Your task to perform on an android device: Go to sound settings Image 0: 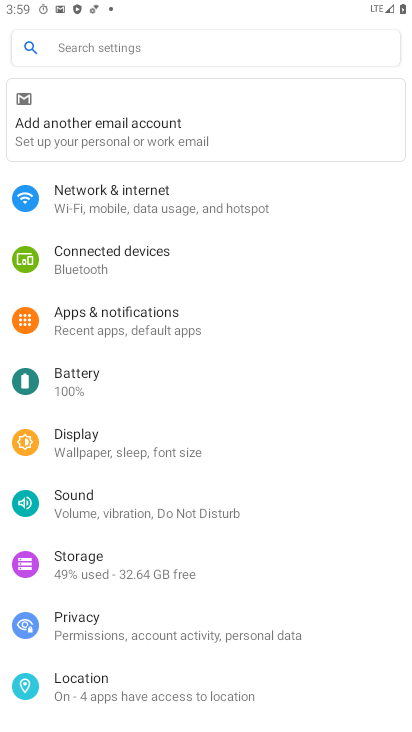
Step 0: click (74, 506)
Your task to perform on an android device: Go to sound settings Image 1: 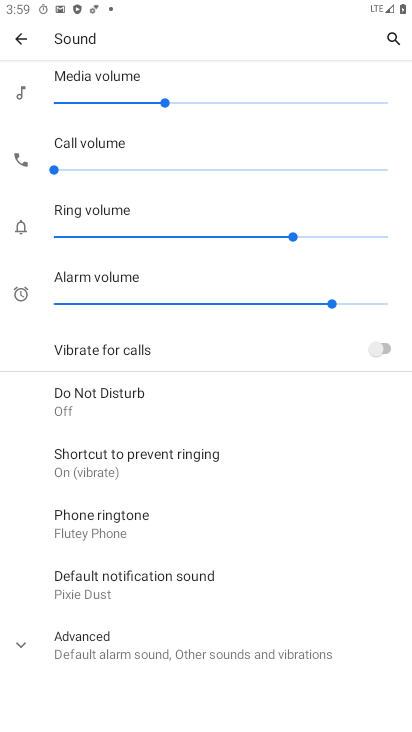
Step 1: task complete